Your task to perform on an android device: star an email in the gmail app Image 0: 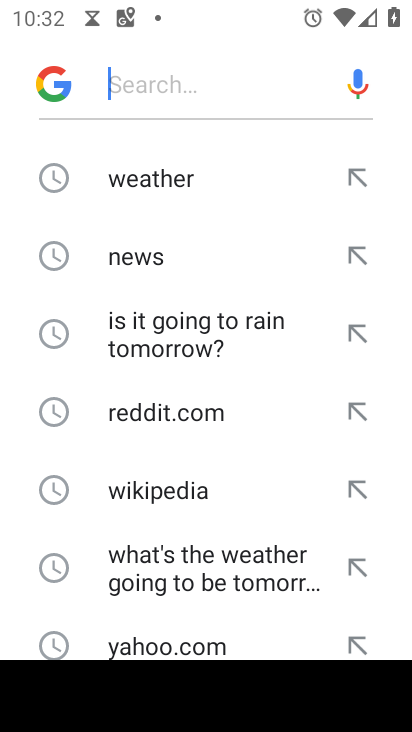
Step 0: press back button
Your task to perform on an android device: star an email in the gmail app Image 1: 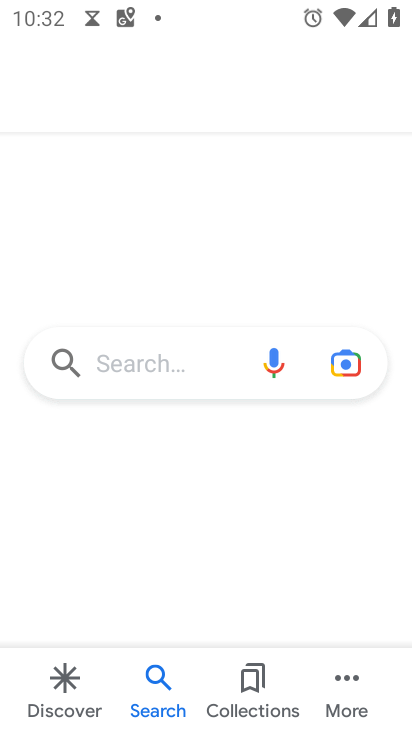
Step 1: press home button
Your task to perform on an android device: star an email in the gmail app Image 2: 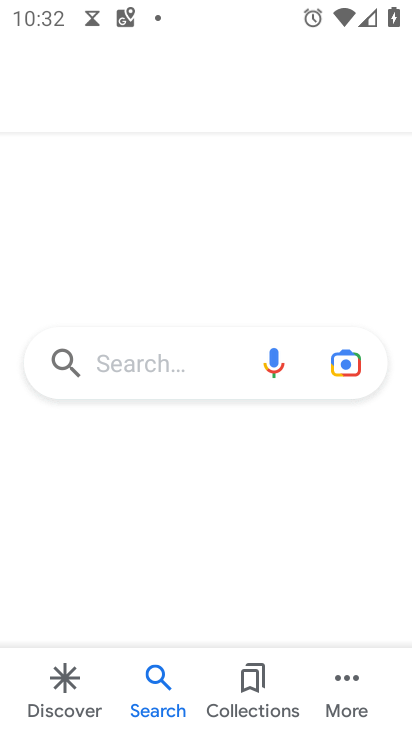
Step 2: press home button
Your task to perform on an android device: star an email in the gmail app Image 3: 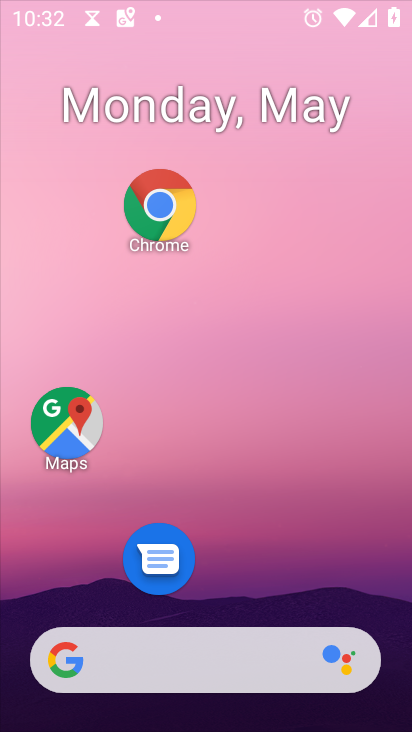
Step 3: press home button
Your task to perform on an android device: star an email in the gmail app Image 4: 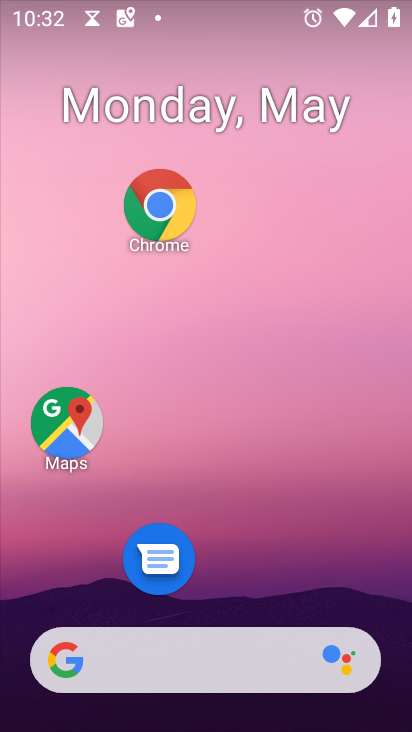
Step 4: drag from (229, 657) to (150, 52)
Your task to perform on an android device: star an email in the gmail app Image 5: 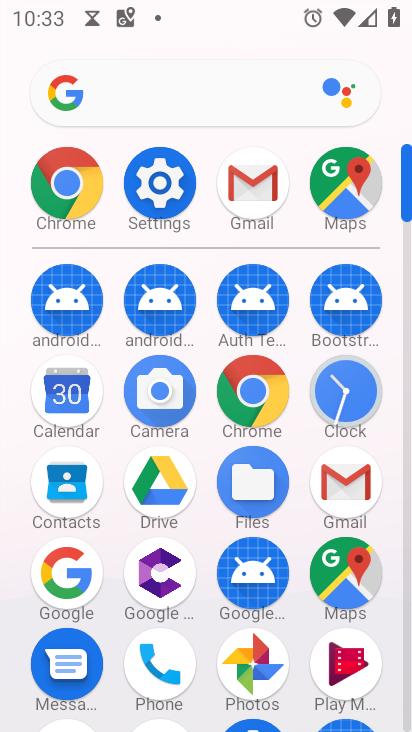
Step 5: click (356, 478)
Your task to perform on an android device: star an email in the gmail app Image 6: 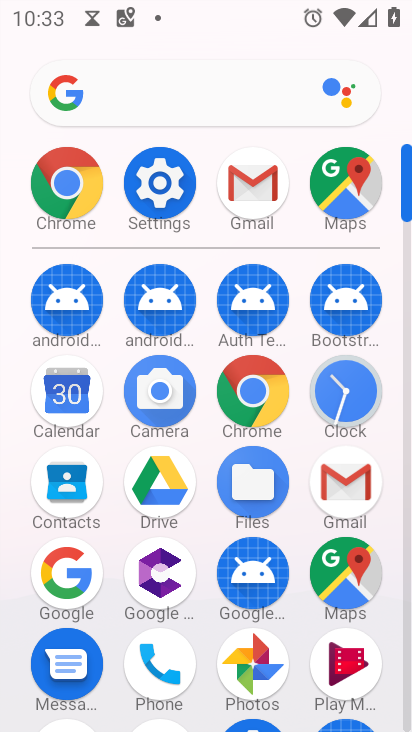
Step 6: click (352, 494)
Your task to perform on an android device: star an email in the gmail app Image 7: 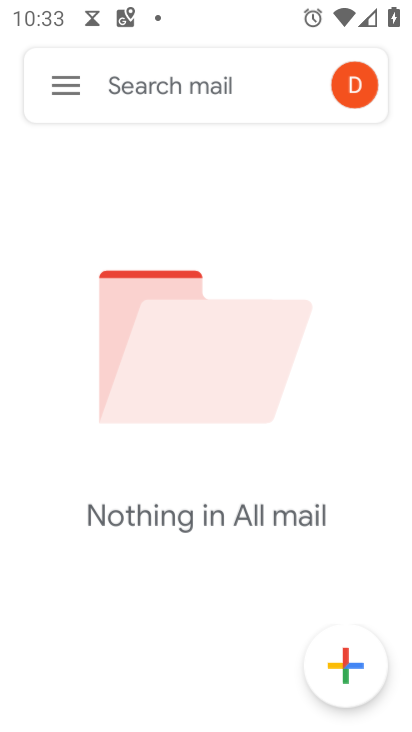
Step 7: click (350, 496)
Your task to perform on an android device: star an email in the gmail app Image 8: 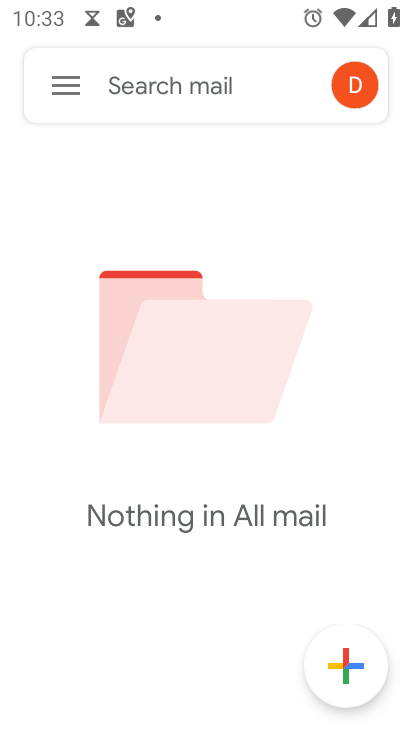
Step 8: click (347, 493)
Your task to perform on an android device: star an email in the gmail app Image 9: 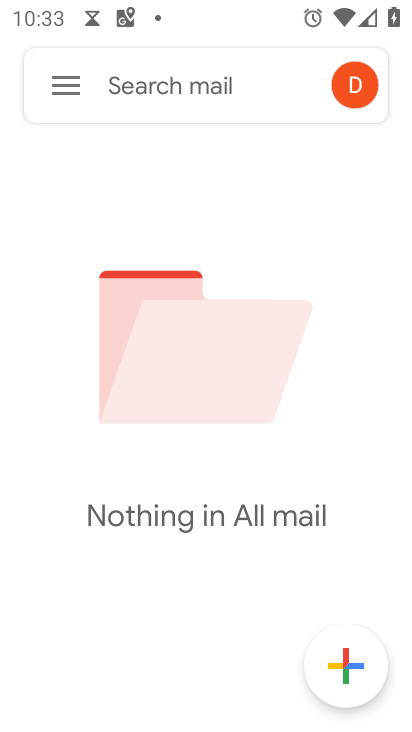
Step 9: click (66, 75)
Your task to perform on an android device: star an email in the gmail app Image 10: 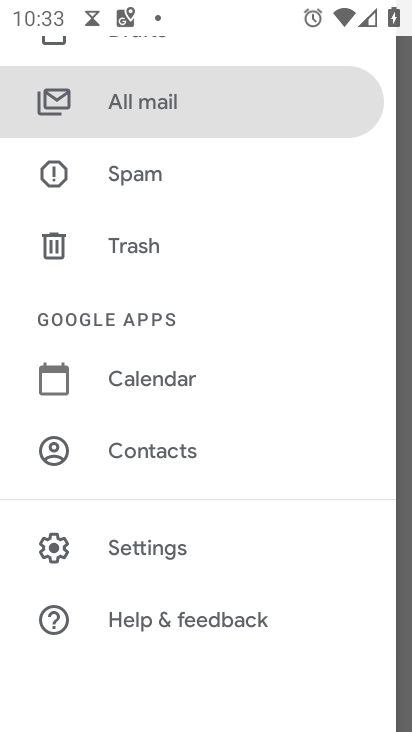
Step 10: click (133, 545)
Your task to perform on an android device: star an email in the gmail app Image 11: 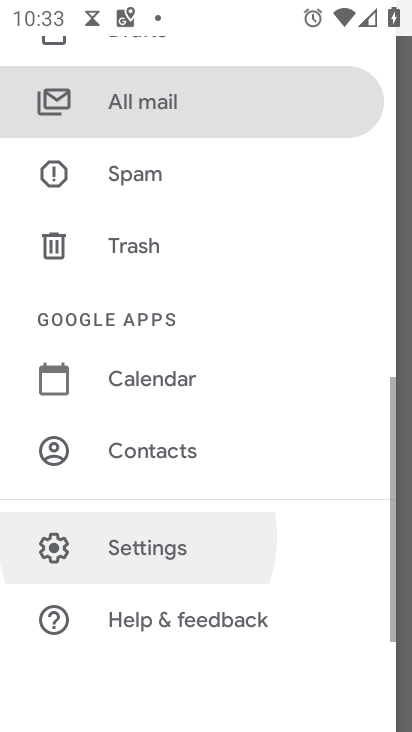
Step 11: click (137, 543)
Your task to perform on an android device: star an email in the gmail app Image 12: 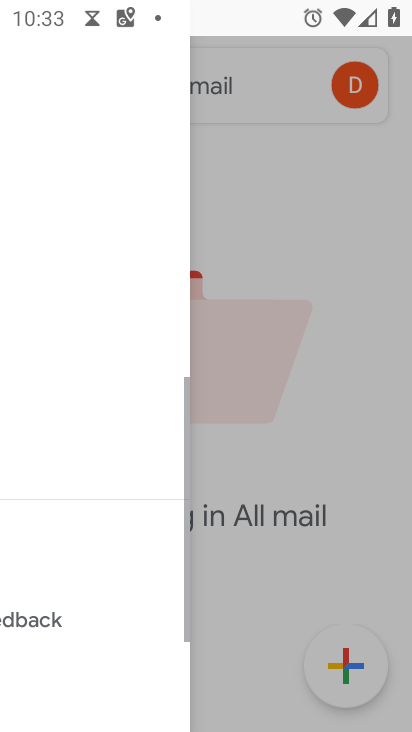
Step 12: click (137, 542)
Your task to perform on an android device: star an email in the gmail app Image 13: 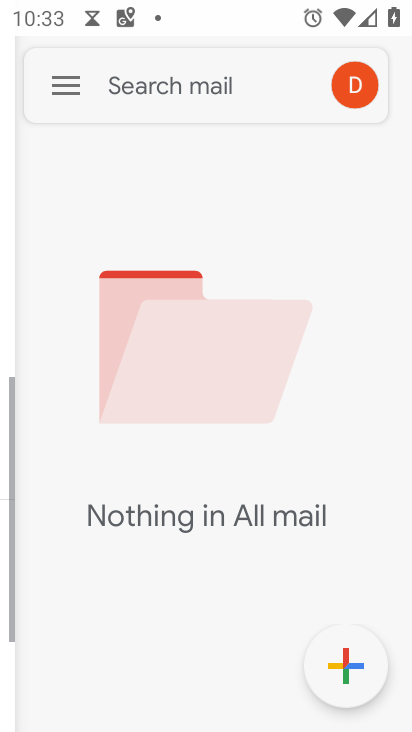
Step 13: click (135, 539)
Your task to perform on an android device: star an email in the gmail app Image 14: 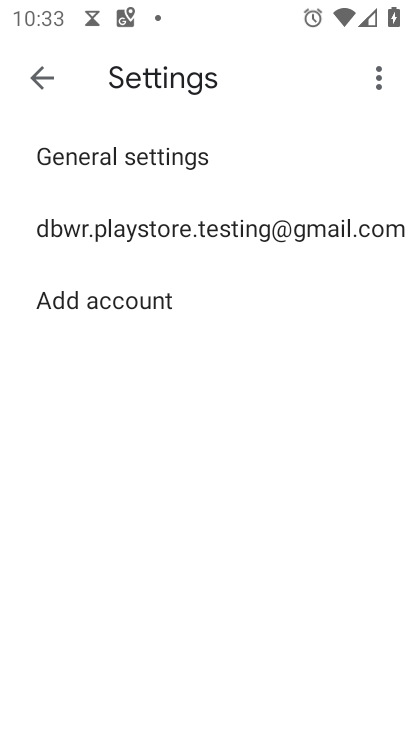
Step 14: click (39, 72)
Your task to perform on an android device: star an email in the gmail app Image 15: 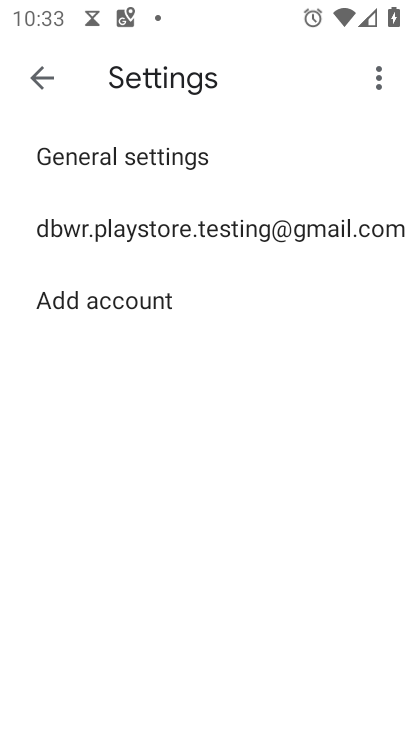
Step 15: click (39, 75)
Your task to perform on an android device: star an email in the gmail app Image 16: 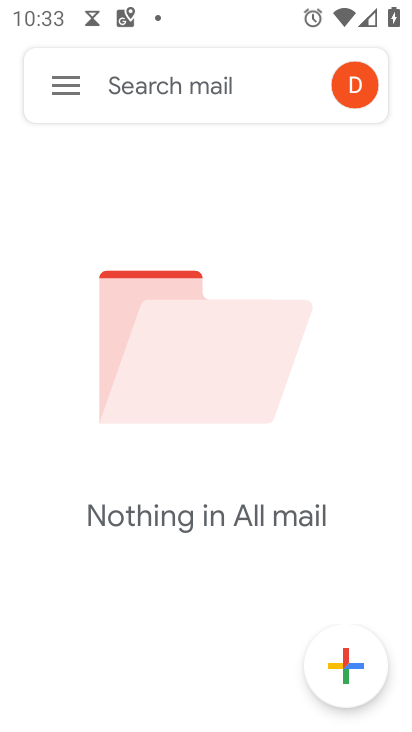
Step 16: click (61, 91)
Your task to perform on an android device: star an email in the gmail app Image 17: 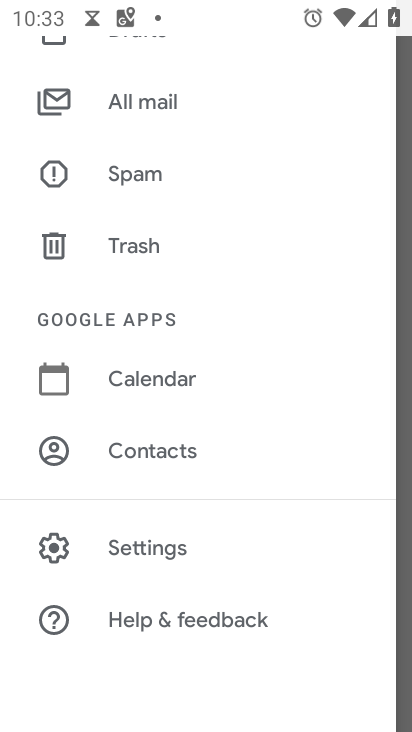
Step 17: drag from (125, 191) to (173, 506)
Your task to perform on an android device: star an email in the gmail app Image 18: 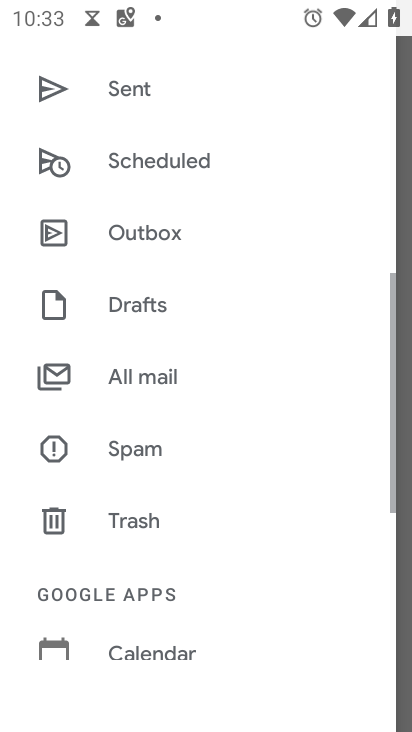
Step 18: drag from (144, 230) to (179, 640)
Your task to perform on an android device: star an email in the gmail app Image 19: 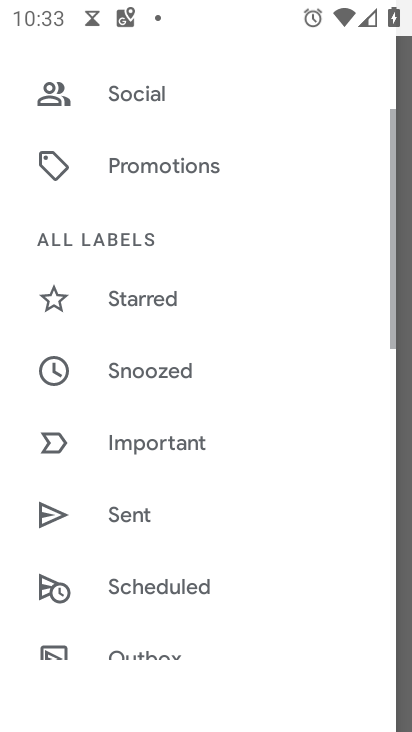
Step 19: drag from (149, 290) to (206, 690)
Your task to perform on an android device: star an email in the gmail app Image 20: 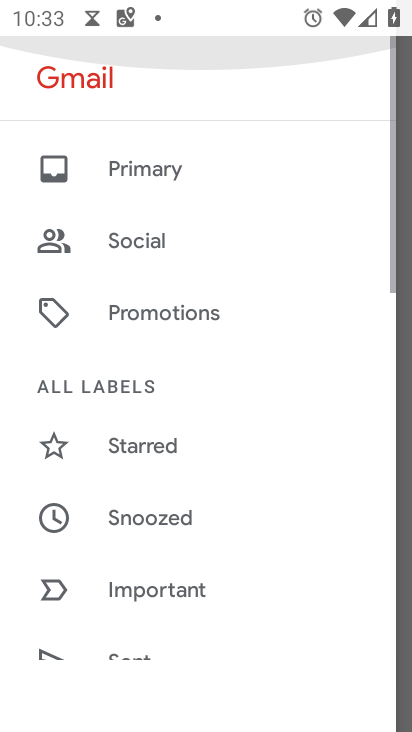
Step 20: drag from (154, 306) to (208, 529)
Your task to perform on an android device: star an email in the gmail app Image 21: 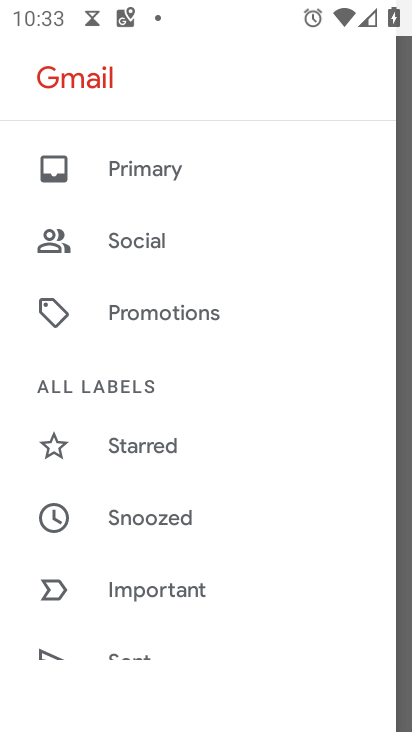
Step 21: click (141, 450)
Your task to perform on an android device: star an email in the gmail app Image 22: 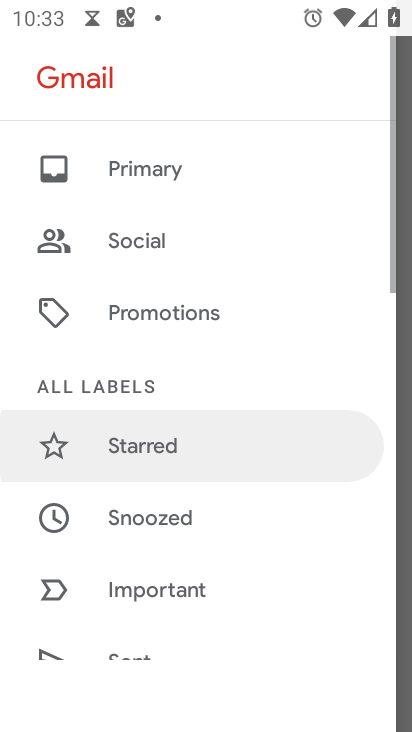
Step 22: click (141, 450)
Your task to perform on an android device: star an email in the gmail app Image 23: 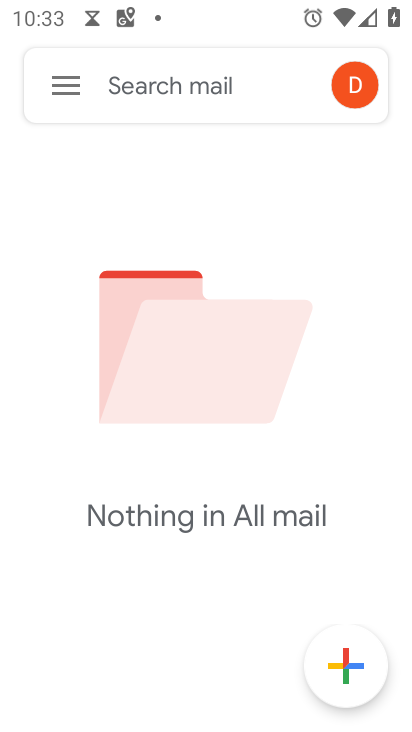
Step 23: click (141, 450)
Your task to perform on an android device: star an email in the gmail app Image 24: 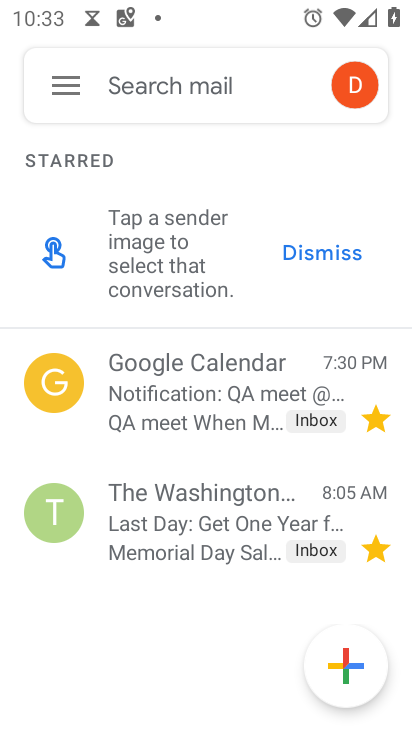
Step 24: click (142, 449)
Your task to perform on an android device: star an email in the gmail app Image 25: 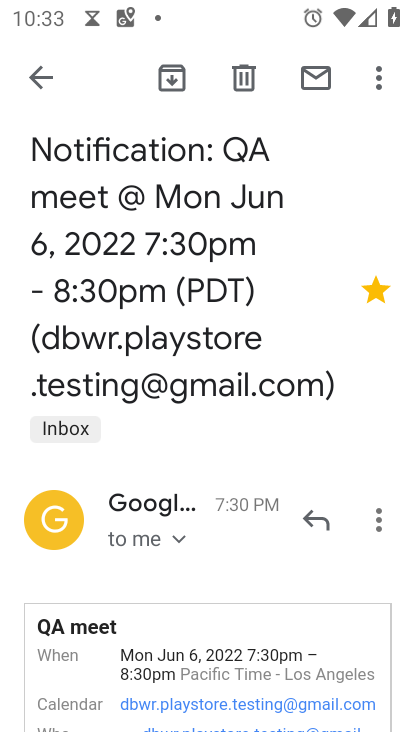
Step 25: click (39, 76)
Your task to perform on an android device: star an email in the gmail app Image 26: 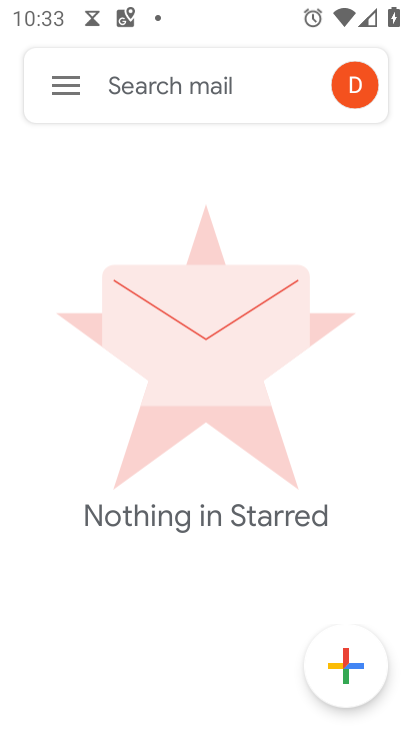
Step 26: task complete